Your task to perform on an android device: check out phone information Image 0: 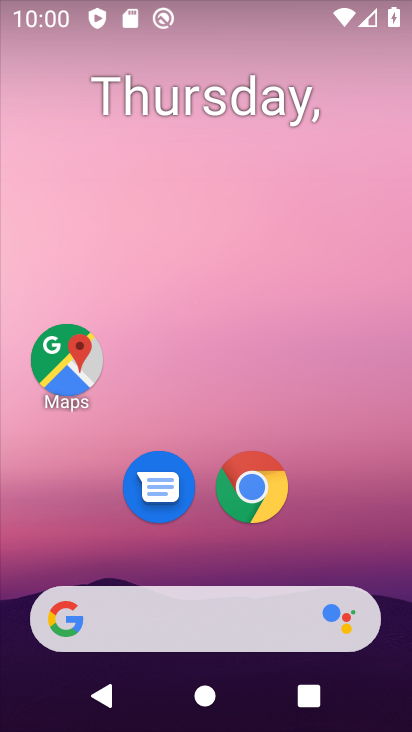
Step 0: drag from (303, 547) to (225, 216)
Your task to perform on an android device: check out phone information Image 1: 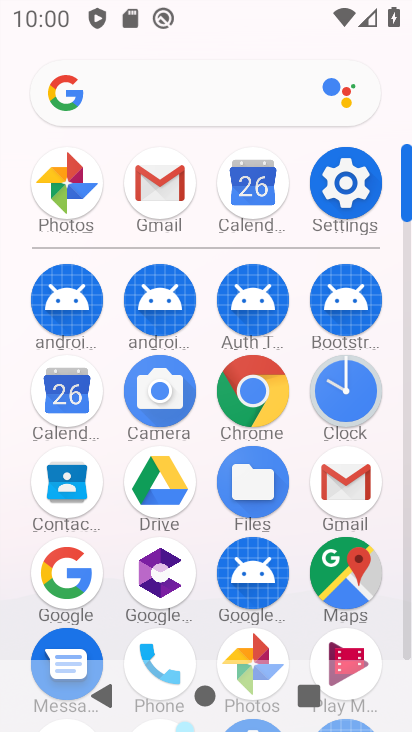
Step 1: click (159, 642)
Your task to perform on an android device: check out phone information Image 2: 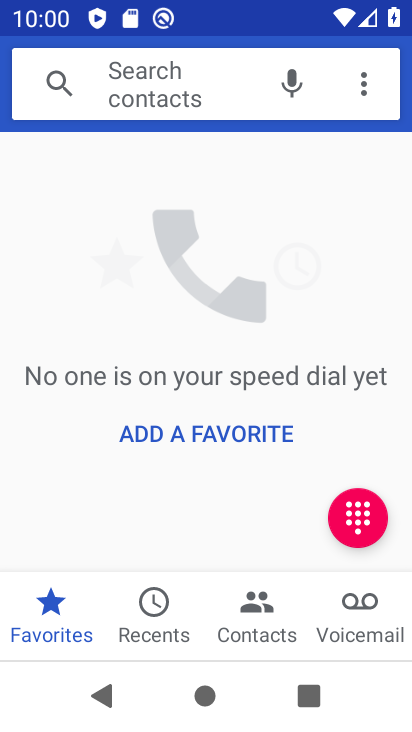
Step 2: click (365, 81)
Your task to perform on an android device: check out phone information Image 3: 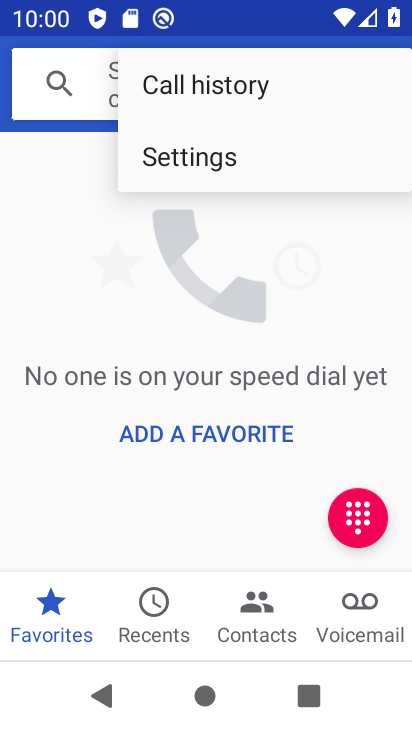
Step 3: click (236, 161)
Your task to perform on an android device: check out phone information Image 4: 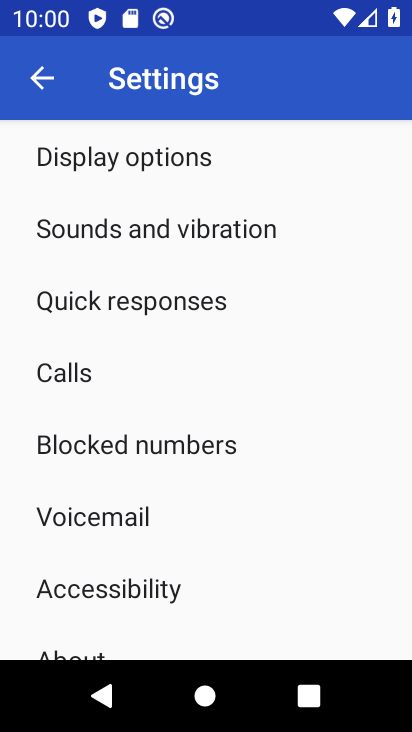
Step 4: click (77, 649)
Your task to perform on an android device: check out phone information Image 5: 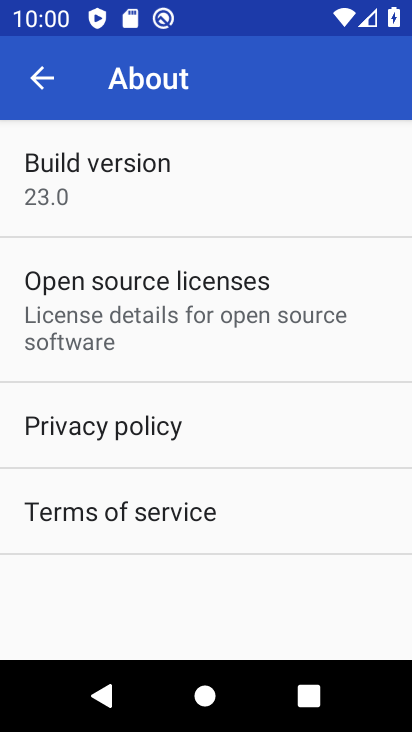
Step 5: task complete